Your task to perform on an android device: See recent photos Image 0: 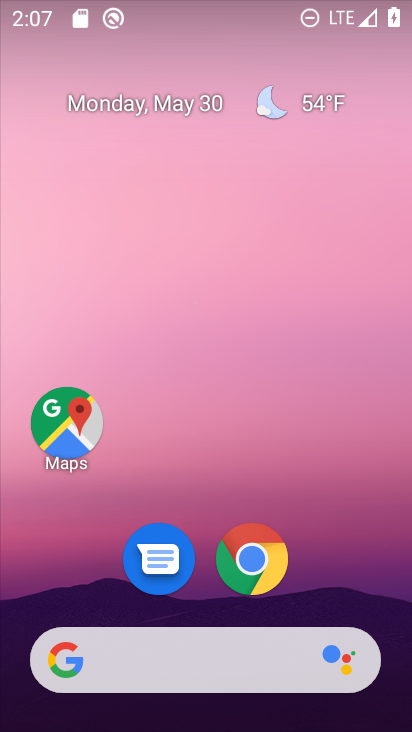
Step 0: drag from (324, 588) to (342, 5)
Your task to perform on an android device: See recent photos Image 1: 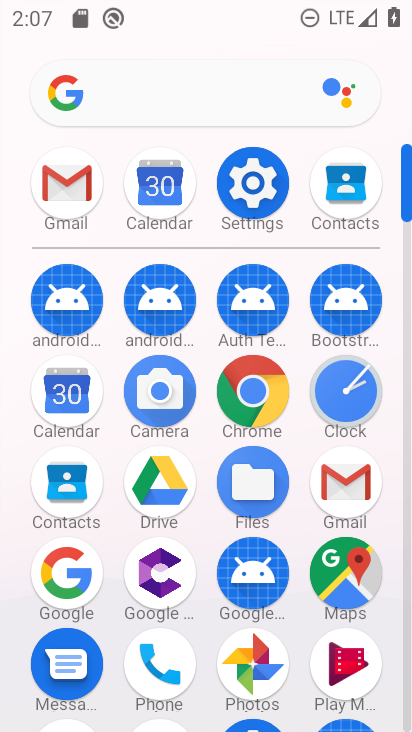
Step 1: click (247, 662)
Your task to perform on an android device: See recent photos Image 2: 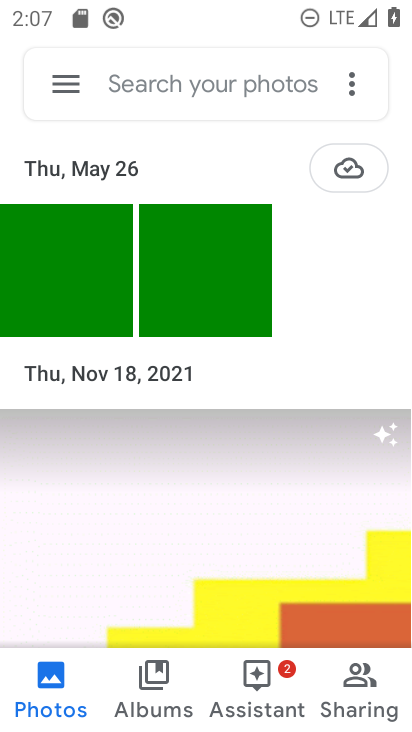
Step 2: task complete